Your task to perform on an android device: Go to notification settings Image 0: 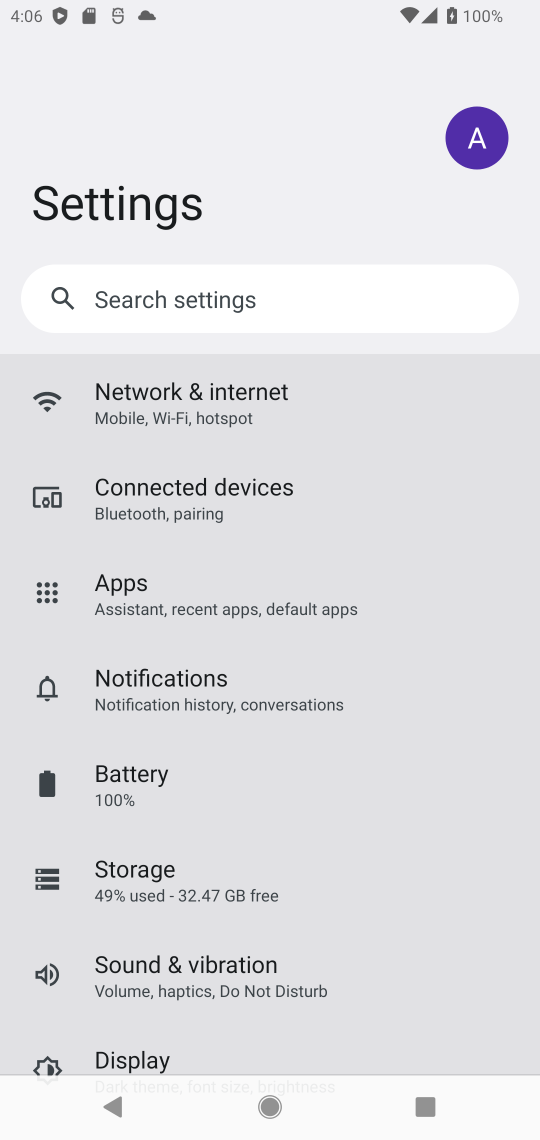
Step 0: click (155, 682)
Your task to perform on an android device: Go to notification settings Image 1: 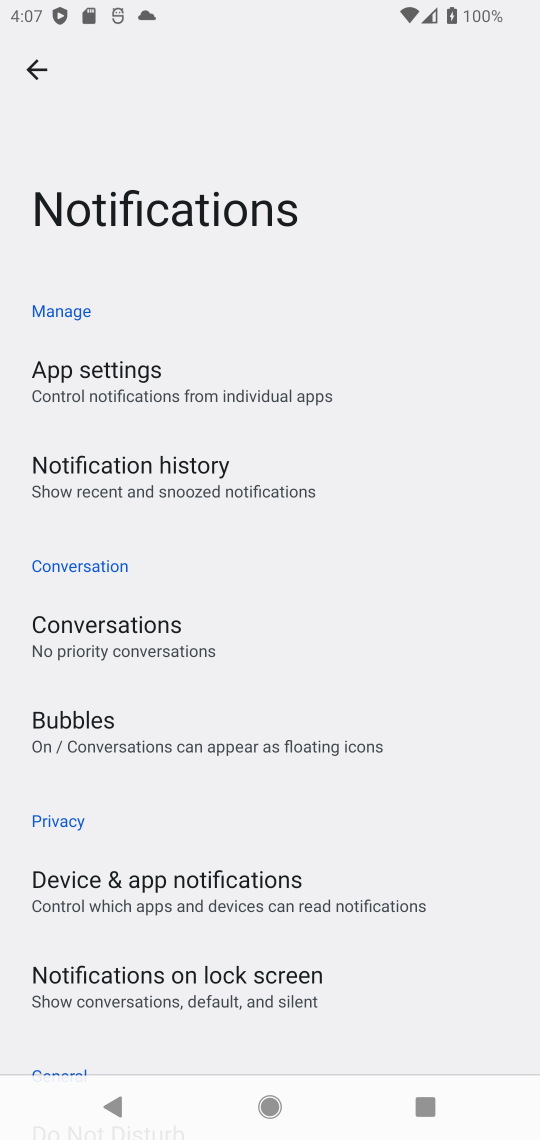
Step 1: task complete